Your task to perform on an android device: check storage Image 0: 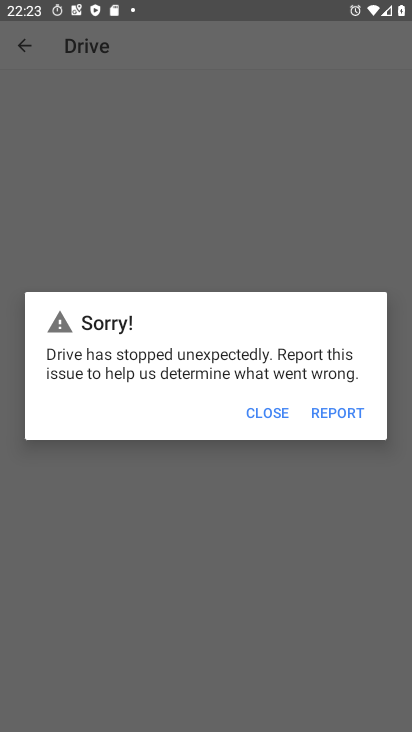
Step 0: press back button
Your task to perform on an android device: check storage Image 1: 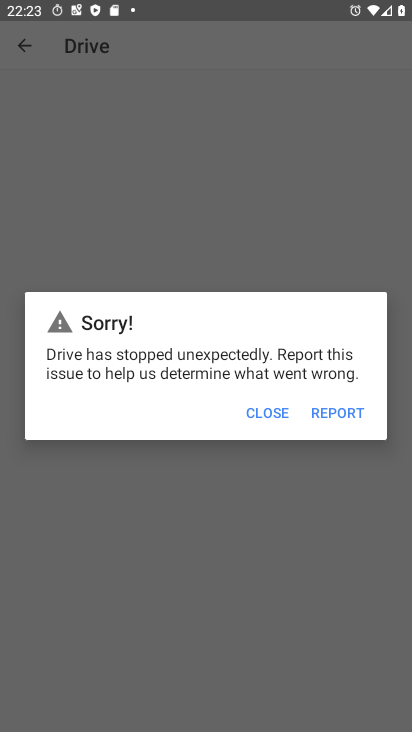
Step 1: press home button
Your task to perform on an android device: check storage Image 2: 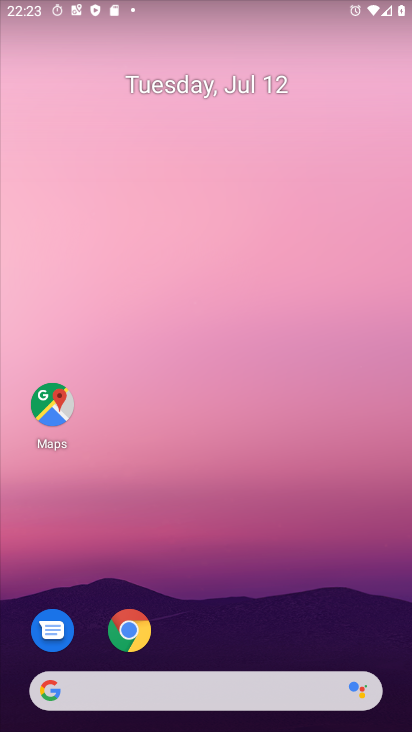
Step 2: drag from (201, 615) to (284, 16)
Your task to perform on an android device: check storage Image 3: 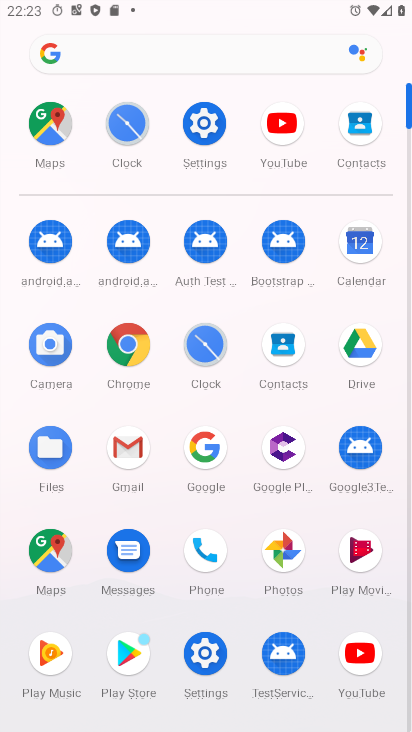
Step 3: click (205, 132)
Your task to perform on an android device: check storage Image 4: 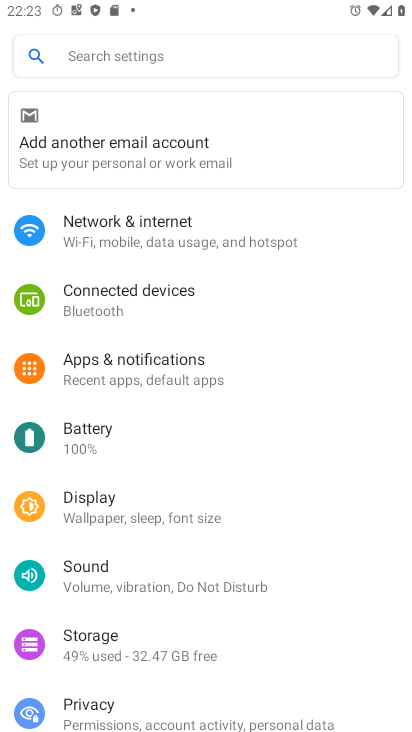
Step 4: click (102, 642)
Your task to perform on an android device: check storage Image 5: 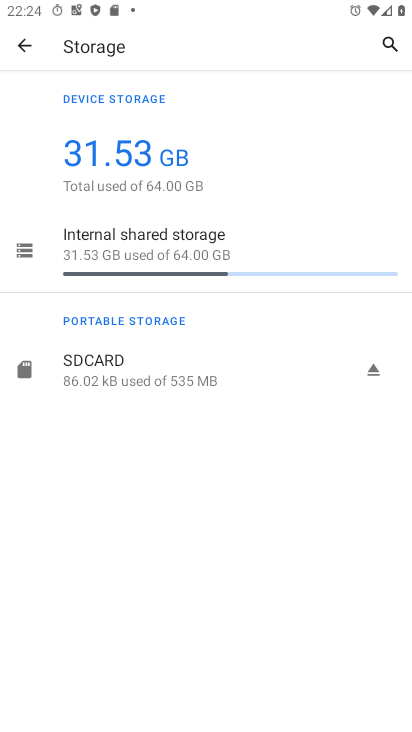
Step 5: task complete